Your task to perform on an android device: Search for seafood restaurants on Google Maps Image 0: 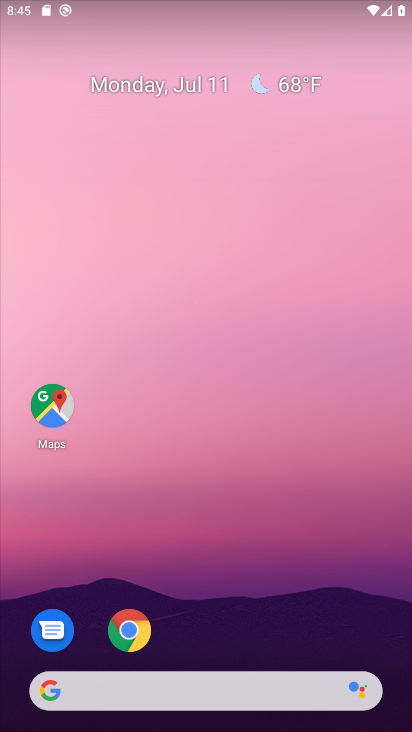
Step 0: drag from (222, 528) to (237, 10)
Your task to perform on an android device: Search for seafood restaurants on Google Maps Image 1: 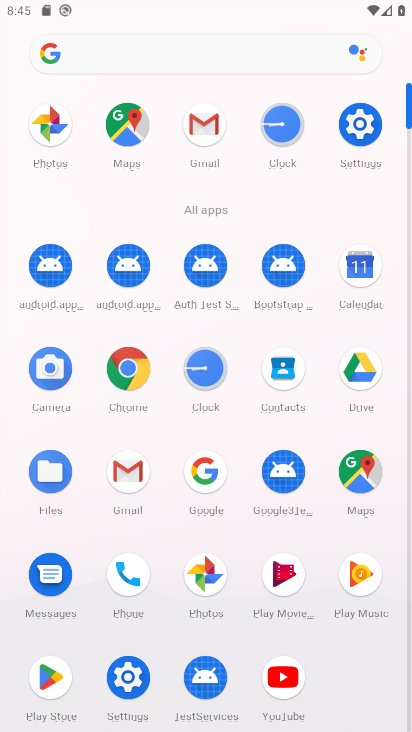
Step 1: click (357, 487)
Your task to perform on an android device: Search for seafood restaurants on Google Maps Image 2: 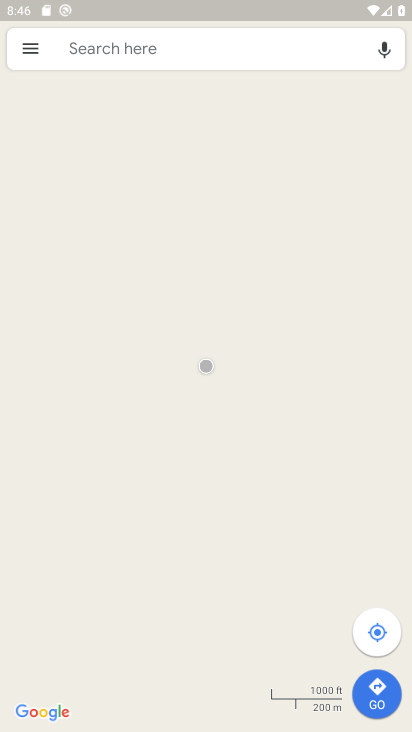
Step 2: click (151, 54)
Your task to perform on an android device: Search for seafood restaurants on Google Maps Image 3: 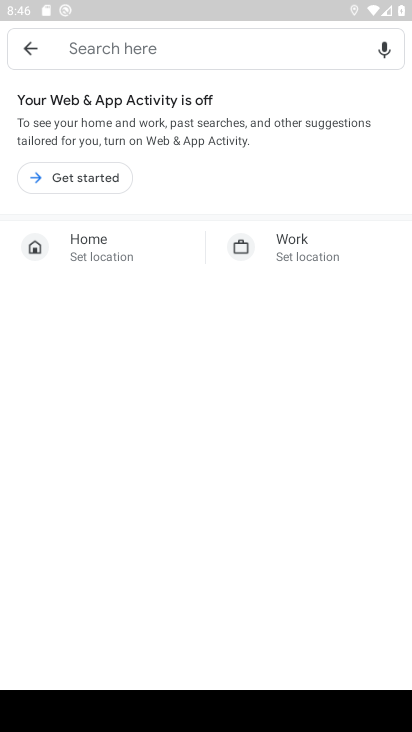
Step 3: type "seafood restaurants"
Your task to perform on an android device: Search for seafood restaurants on Google Maps Image 4: 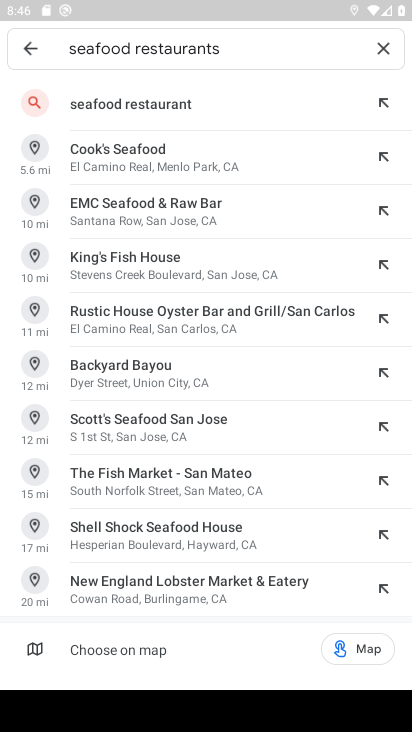
Step 4: click (156, 105)
Your task to perform on an android device: Search for seafood restaurants on Google Maps Image 5: 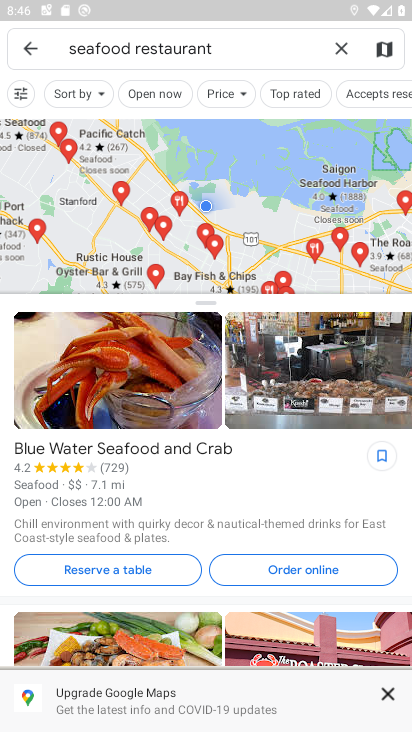
Step 5: task complete